Your task to perform on an android device: turn pop-ups off in chrome Image 0: 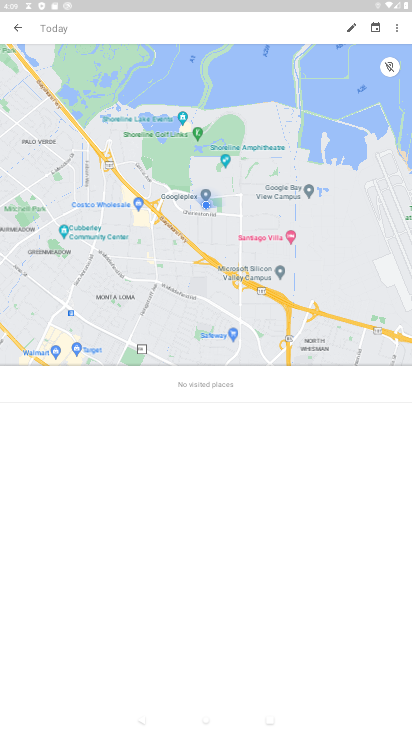
Step 0: press home button
Your task to perform on an android device: turn pop-ups off in chrome Image 1: 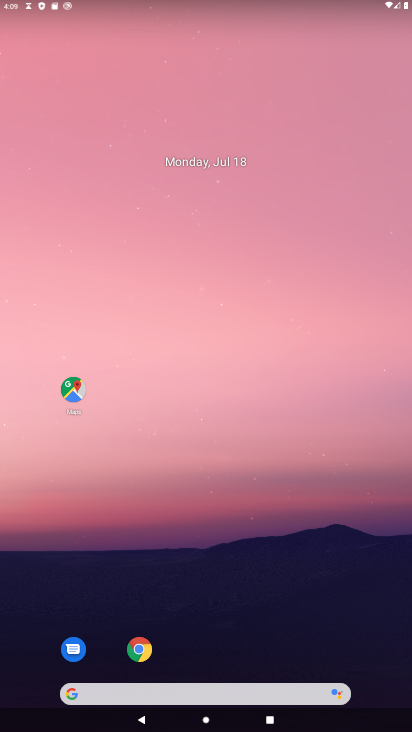
Step 1: click (132, 653)
Your task to perform on an android device: turn pop-ups off in chrome Image 2: 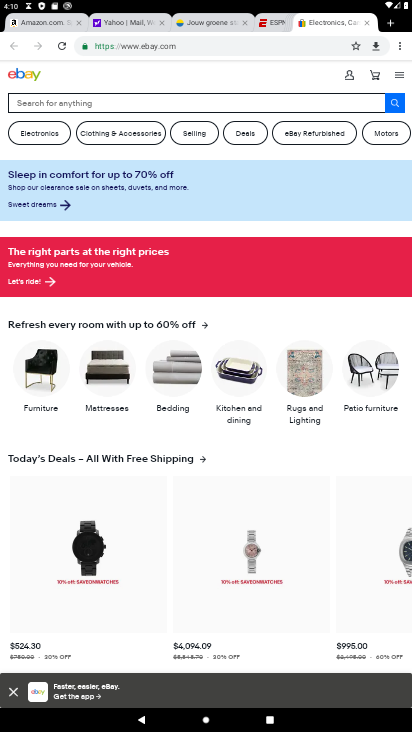
Step 2: drag from (396, 35) to (309, 340)
Your task to perform on an android device: turn pop-ups off in chrome Image 3: 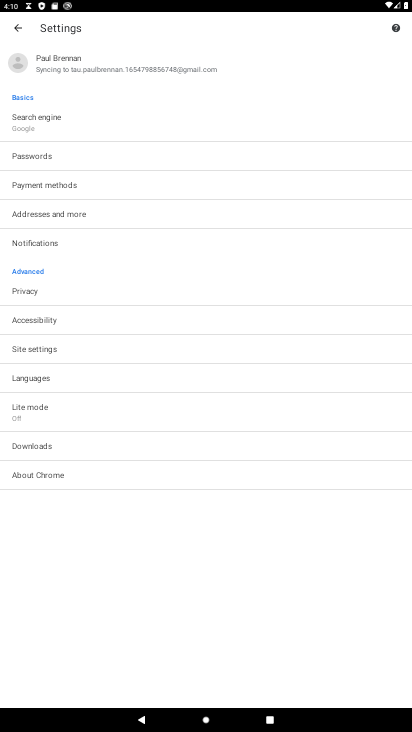
Step 3: click (21, 352)
Your task to perform on an android device: turn pop-ups off in chrome Image 4: 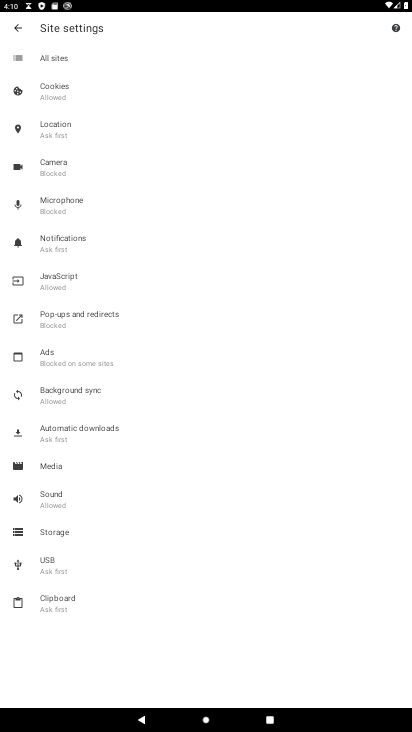
Step 4: click (71, 310)
Your task to perform on an android device: turn pop-ups off in chrome Image 5: 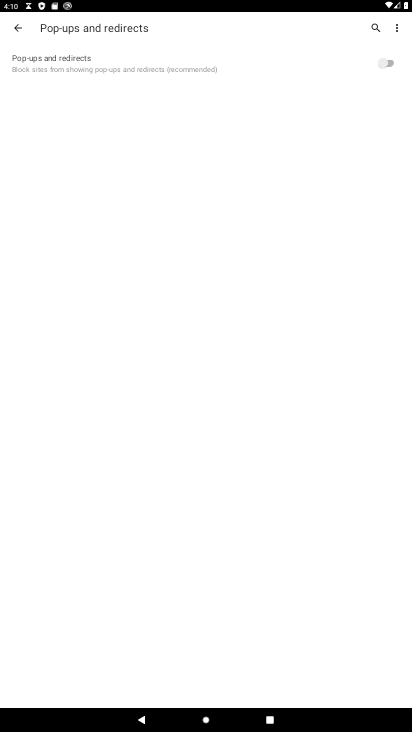
Step 5: task complete